Your task to perform on an android device: Open Maps and search for coffee Image 0: 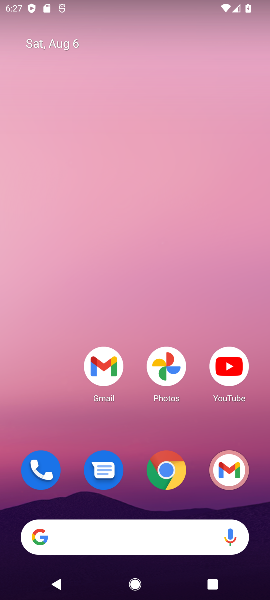
Step 0: drag from (101, 531) to (119, 176)
Your task to perform on an android device: Open Maps and search for coffee Image 1: 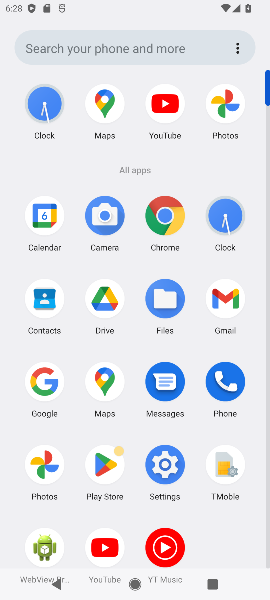
Step 1: click (108, 381)
Your task to perform on an android device: Open Maps and search for coffee Image 2: 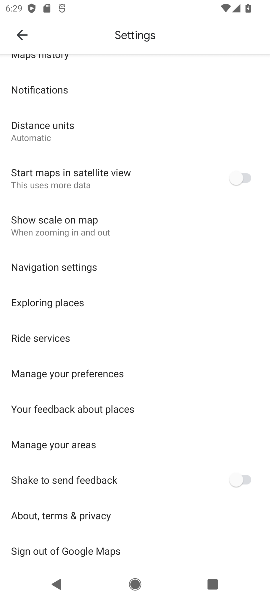
Step 2: click (21, 28)
Your task to perform on an android device: Open Maps and search for coffee Image 3: 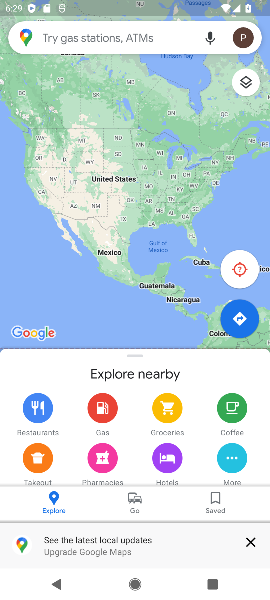
Step 3: click (73, 34)
Your task to perform on an android device: Open Maps and search for coffee Image 4: 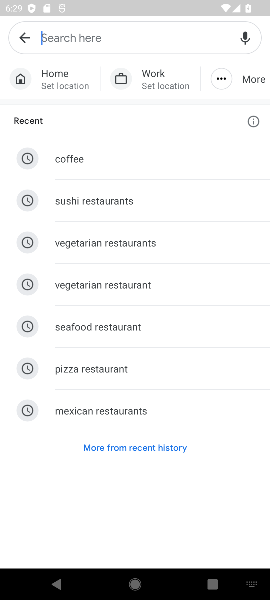
Step 4: type "coffee"
Your task to perform on an android device: Open Maps and search for coffee Image 5: 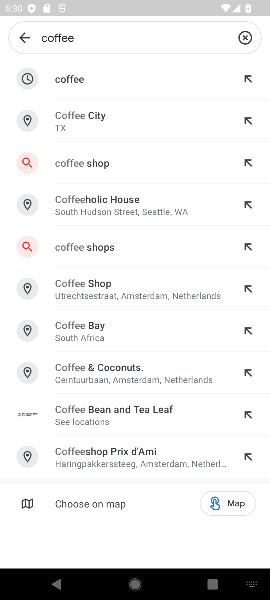
Step 5: click (92, 79)
Your task to perform on an android device: Open Maps and search for coffee Image 6: 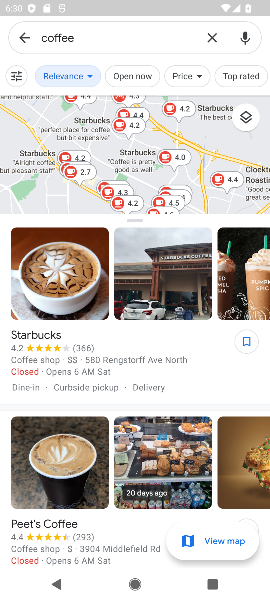
Step 6: task complete